Your task to perform on an android device: Go to Wikipedia Image 0: 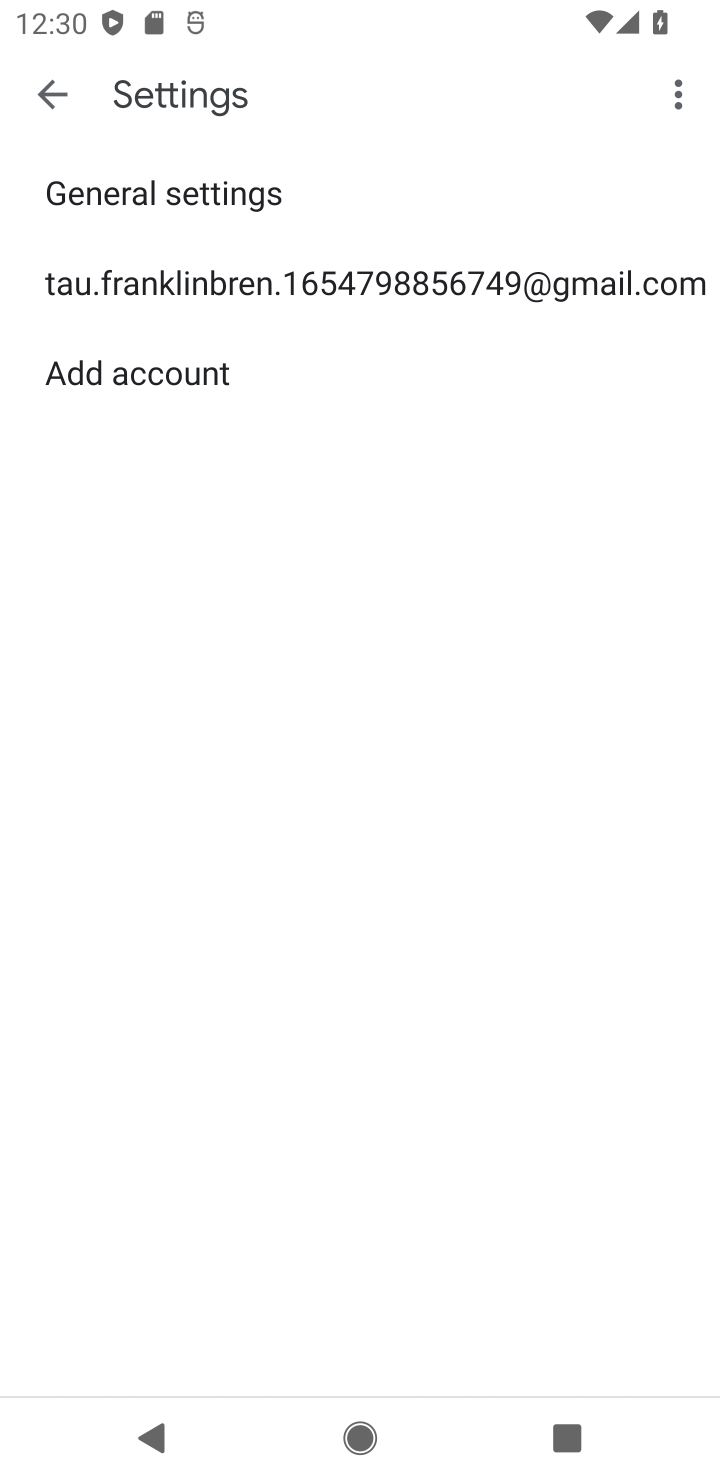
Step 0: press home button
Your task to perform on an android device: Go to Wikipedia Image 1: 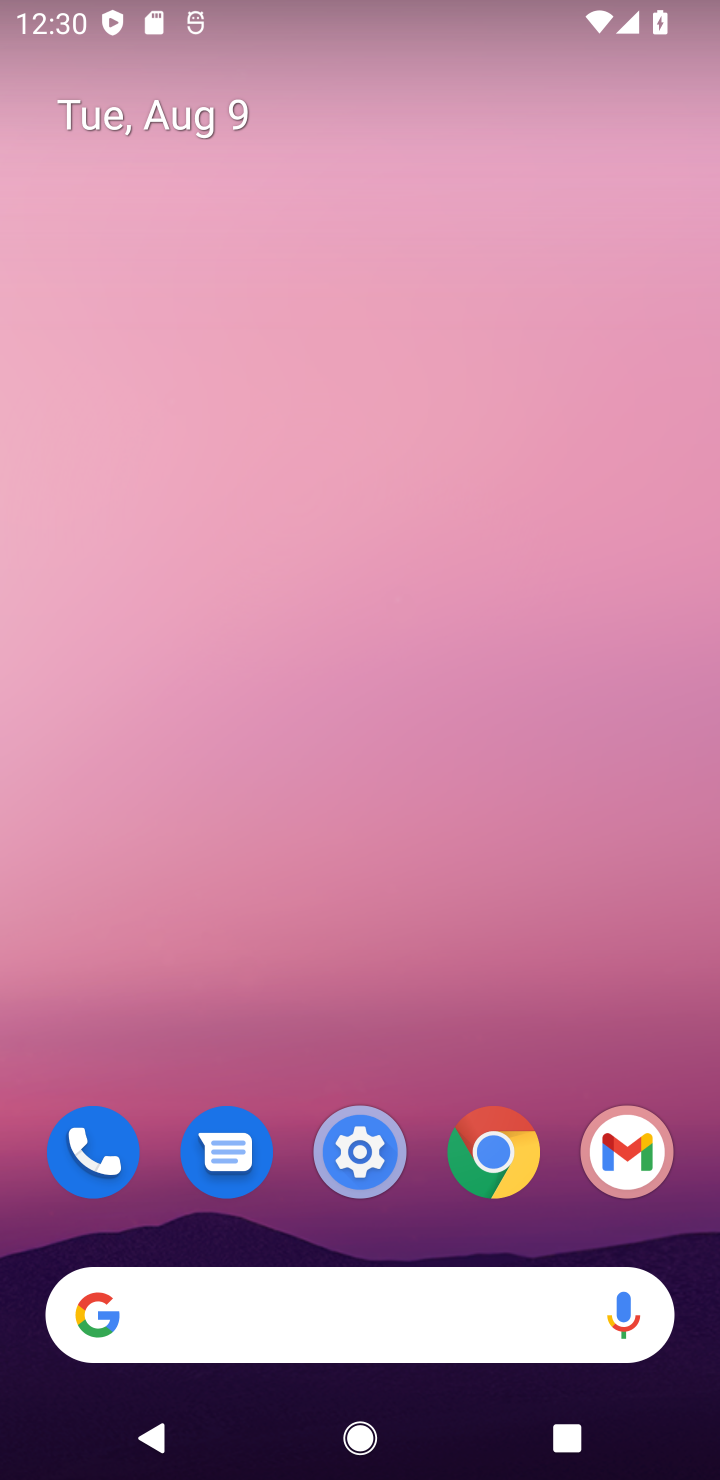
Step 1: click (509, 1197)
Your task to perform on an android device: Go to Wikipedia Image 2: 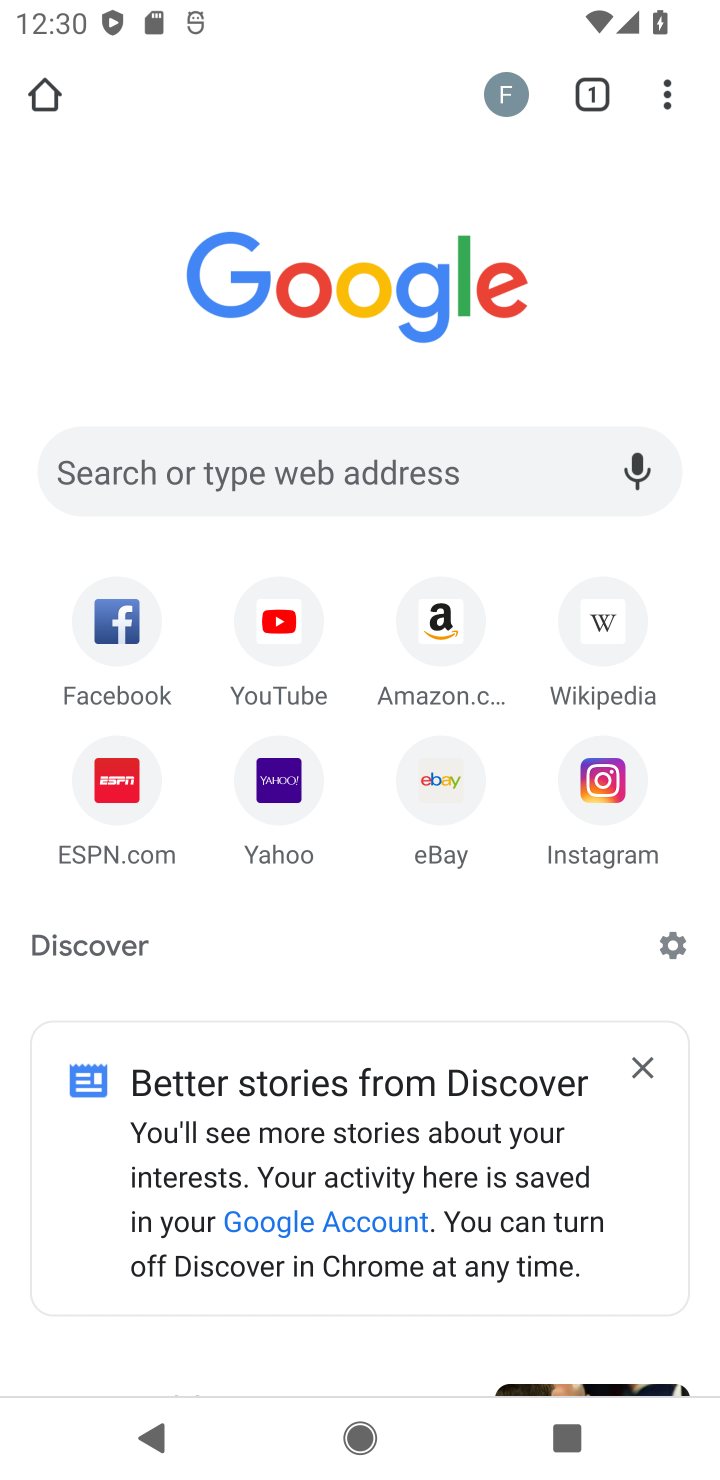
Step 2: click (600, 614)
Your task to perform on an android device: Go to Wikipedia Image 3: 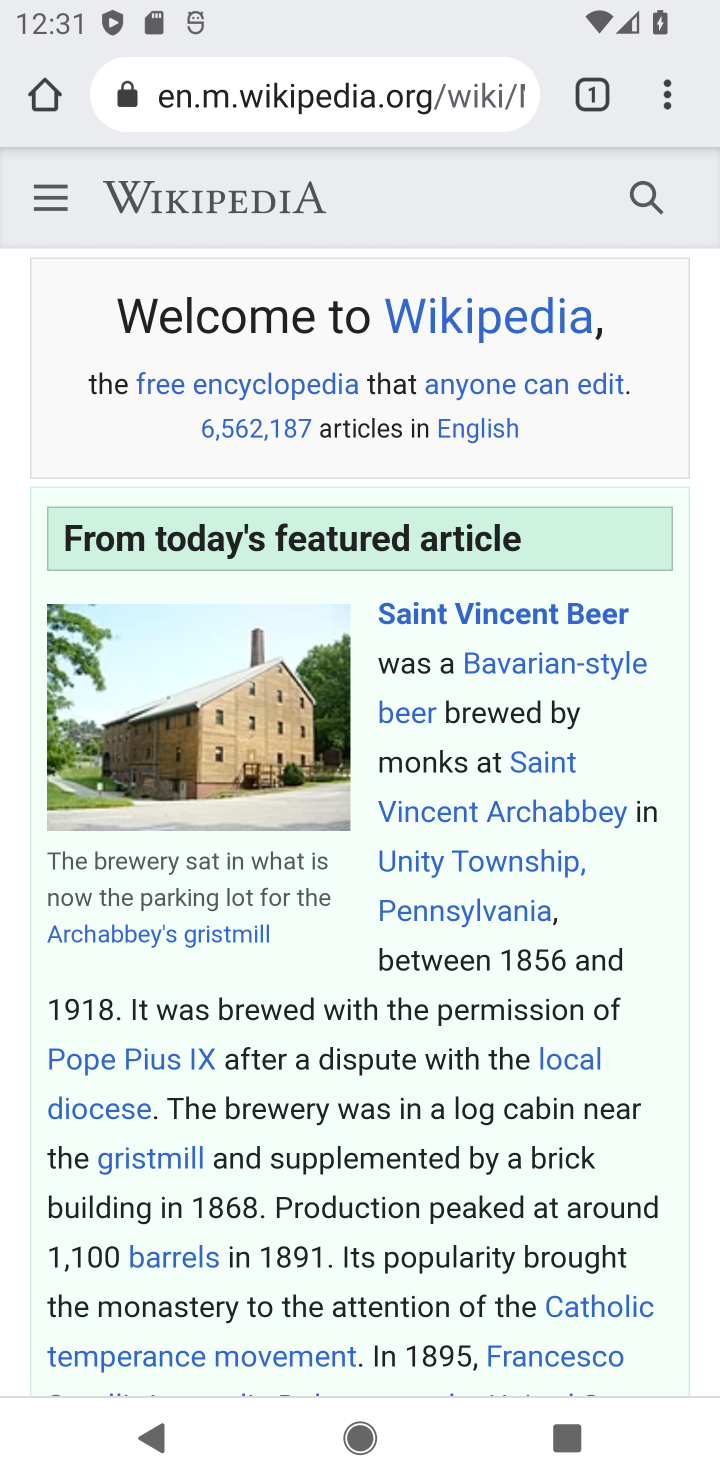
Step 3: task complete